Your task to perform on an android device: Open battery settings Image 0: 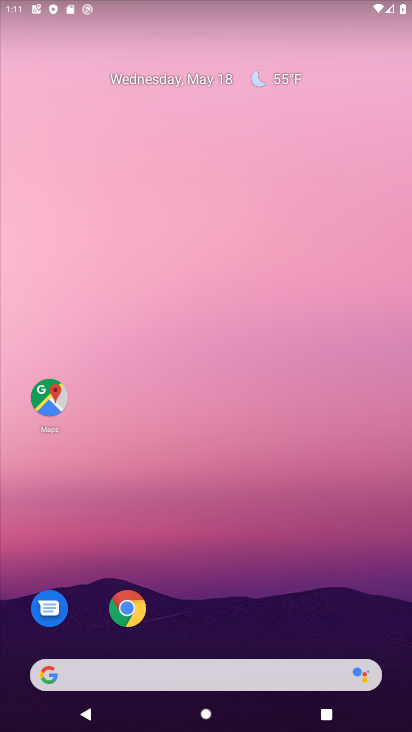
Step 0: drag from (279, 600) to (296, 136)
Your task to perform on an android device: Open battery settings Image 1: 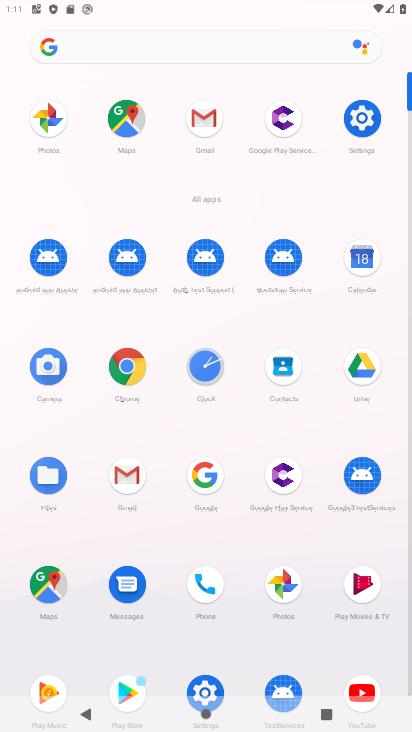
Step 1: click (355, 125)
Your task to perform on an android device: Open battery settings Image 2: 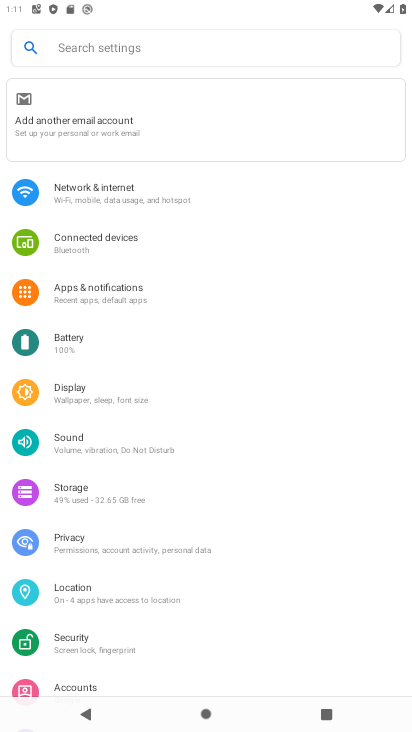
Step 2: click (108, 350)
Your task to perform on an android device: Open battery settings Image 3: 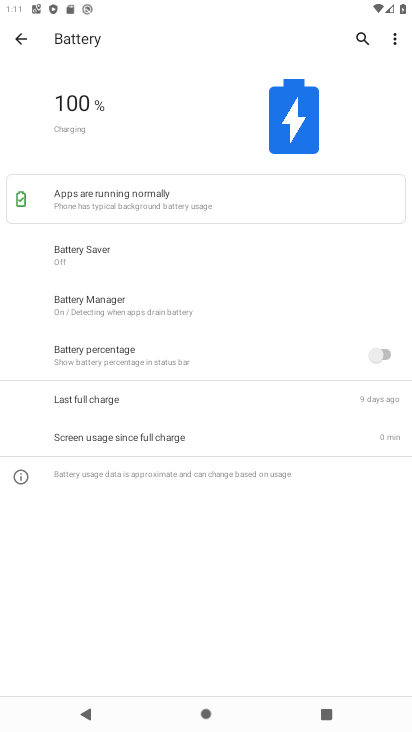
Step 3: task complete